Your task to perform on an android device: allow notifications from all sites in the chrome app Image 0: 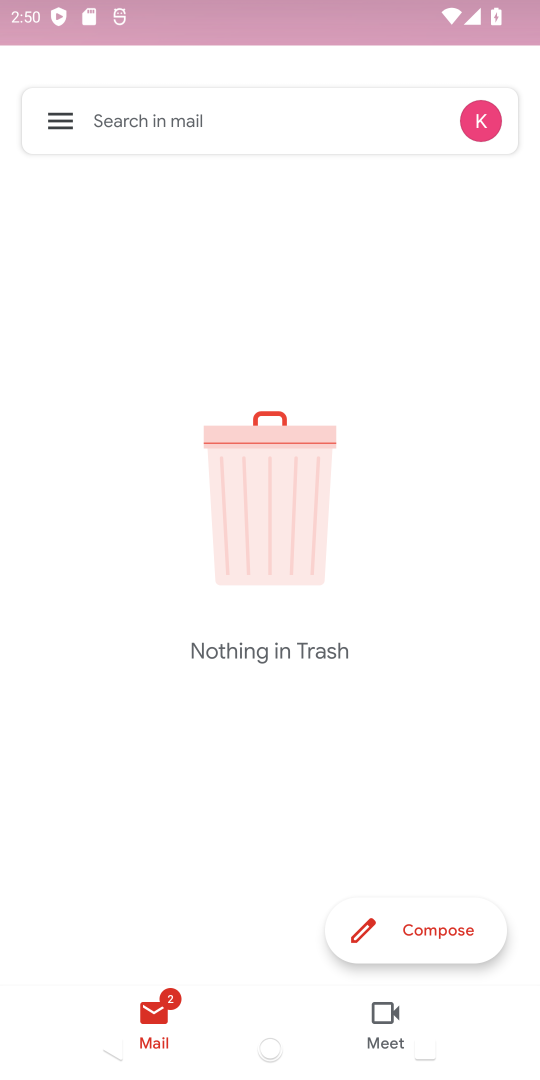
Step 0: press home button
Your task to perform on an android device: allow notifications from all sites in the chrome app Image 1: 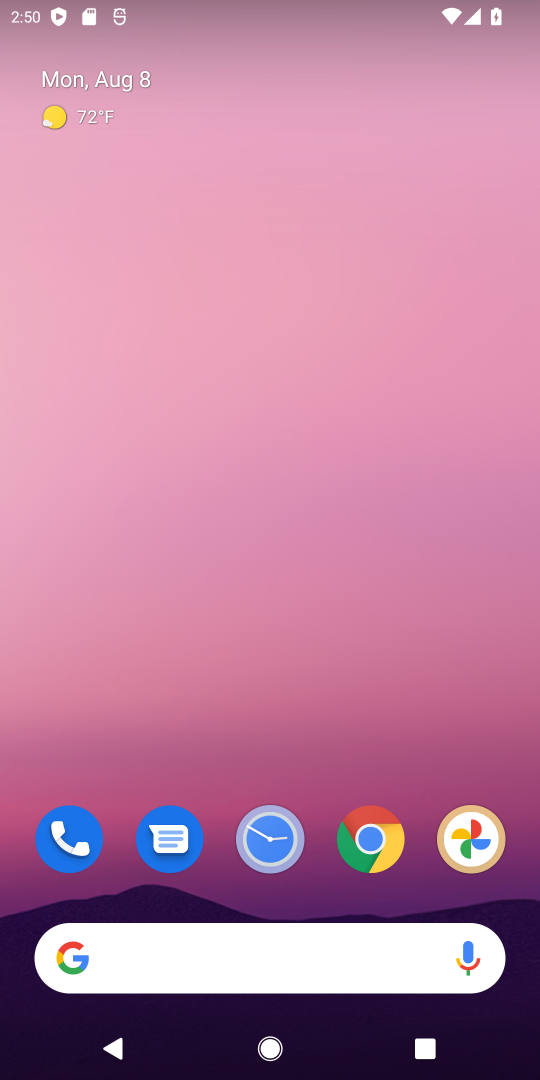
Step 1: press home button
Your task to perform on an android device: allow notifications from all sites in the chrome app Image 2: 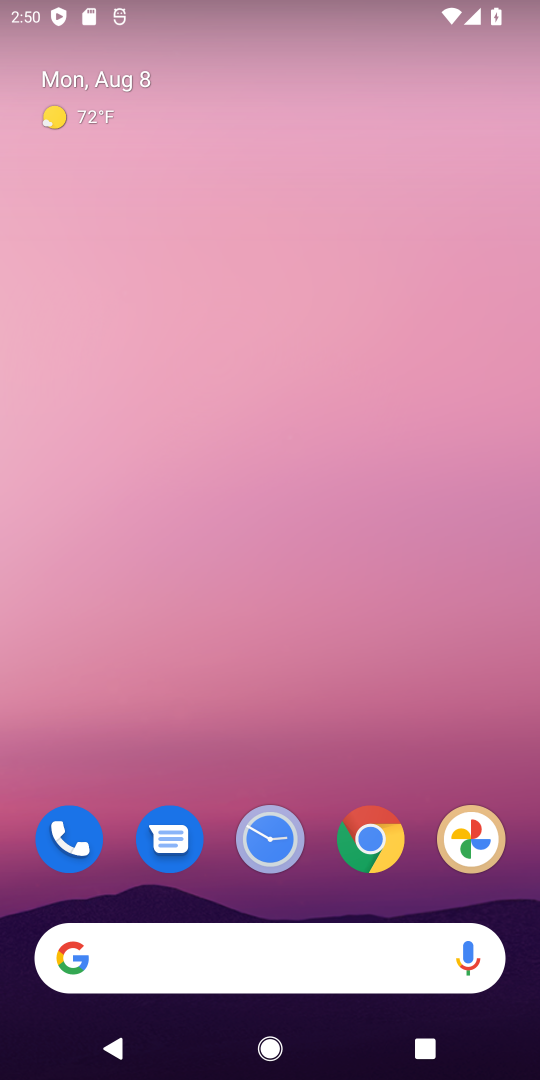
Step 2: drag from (414, 769) to (419, 181)
Your task to perform on an android device: allow notifications from all sites in the chrome app Image 3: 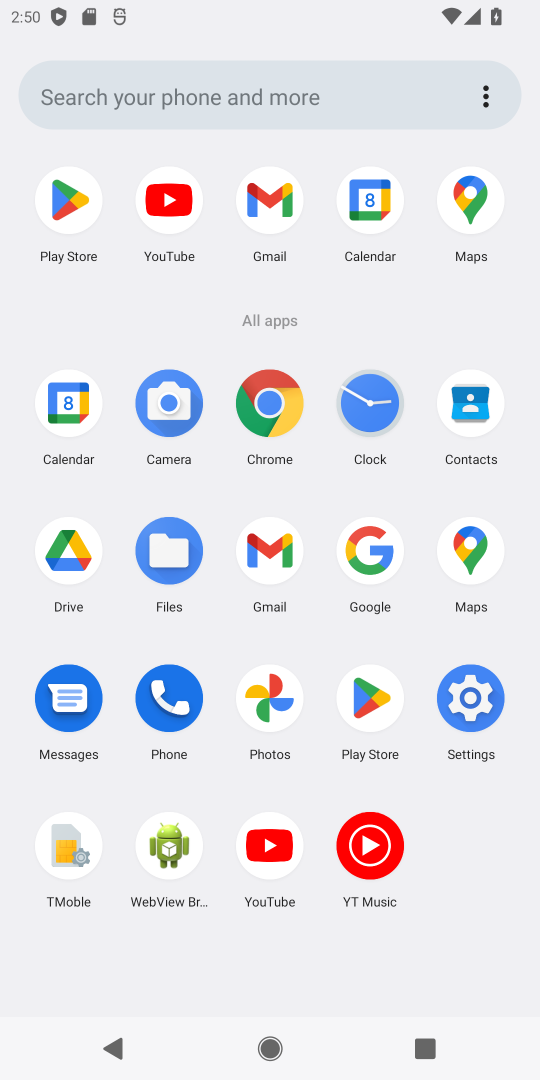
Step 3: click (282, 398)
Your task to perform on an android device: allow notifications from all sites in the chrome app Image 4: 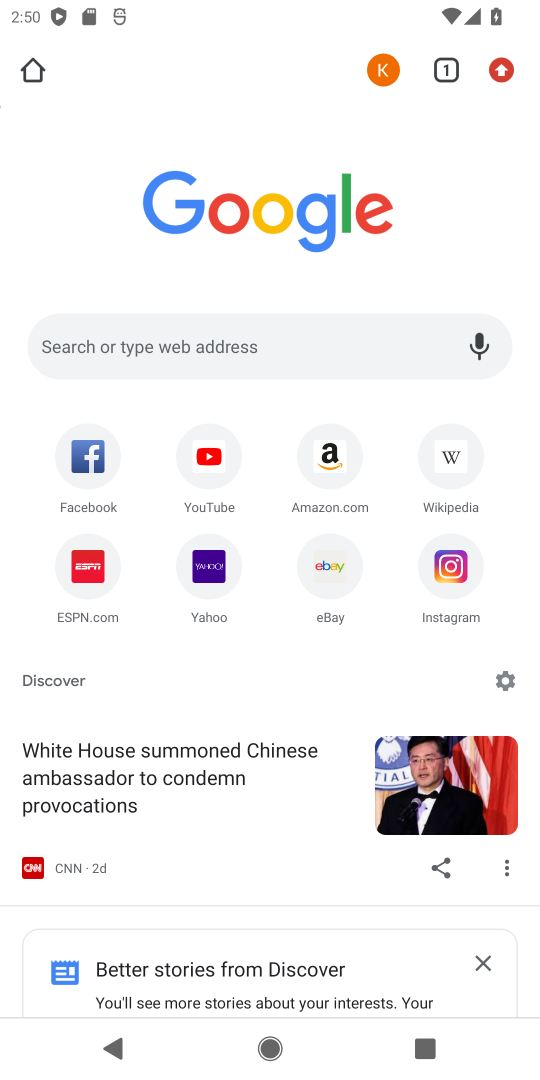
Step 4: click (501, 68)
Your task to perform on an android device: allow notifications from all sites in the chrome app Image 5: 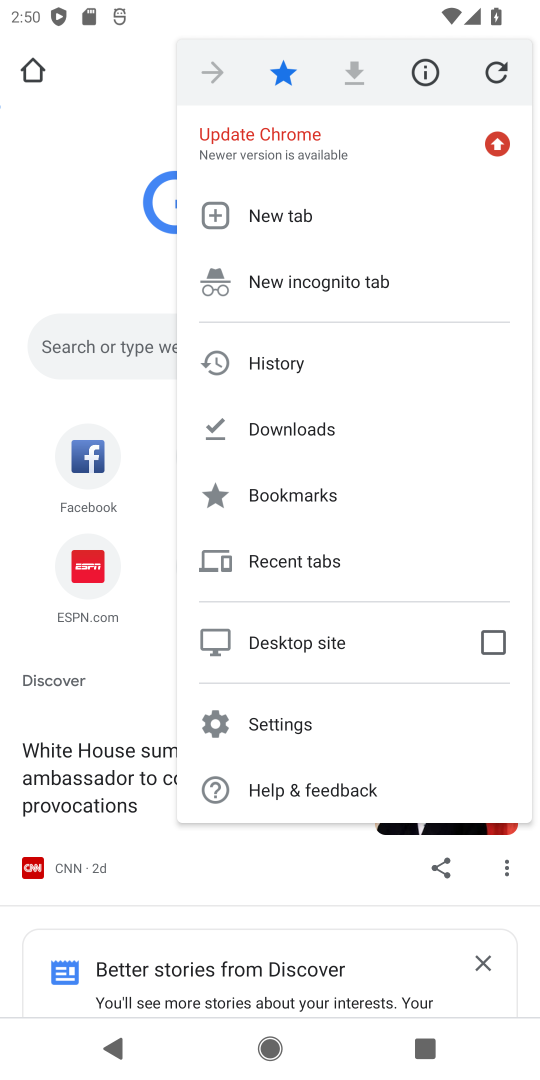
Step 5: click (369, 725)
Your task to perform on an android device: allow notifications from all sites in the chrome app Image 6: 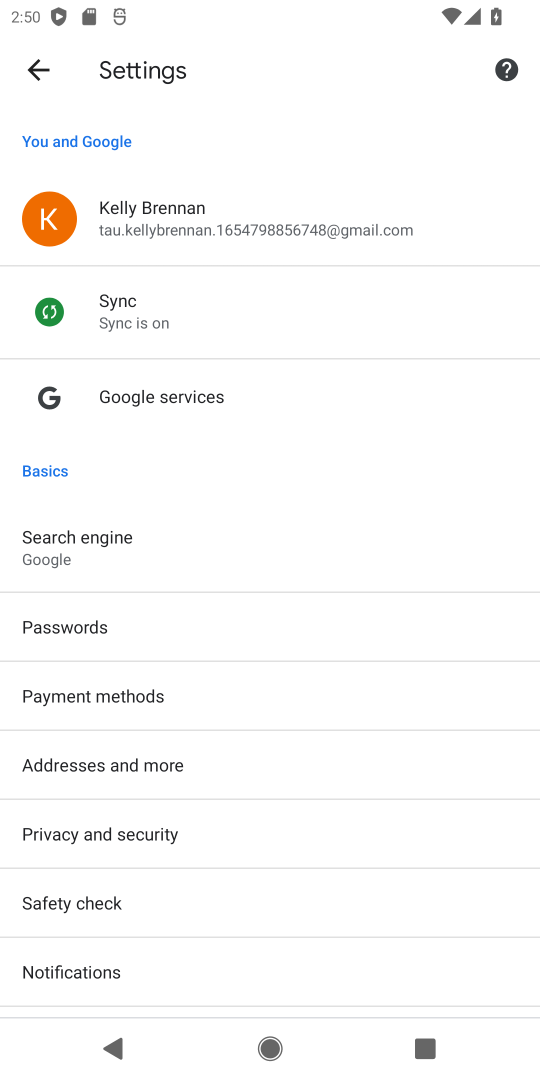
Step 6: drag from (369, 723) to (399, 523)
Your task to perform on an android device: allow notifications from all sites in the chrome app Image 7: 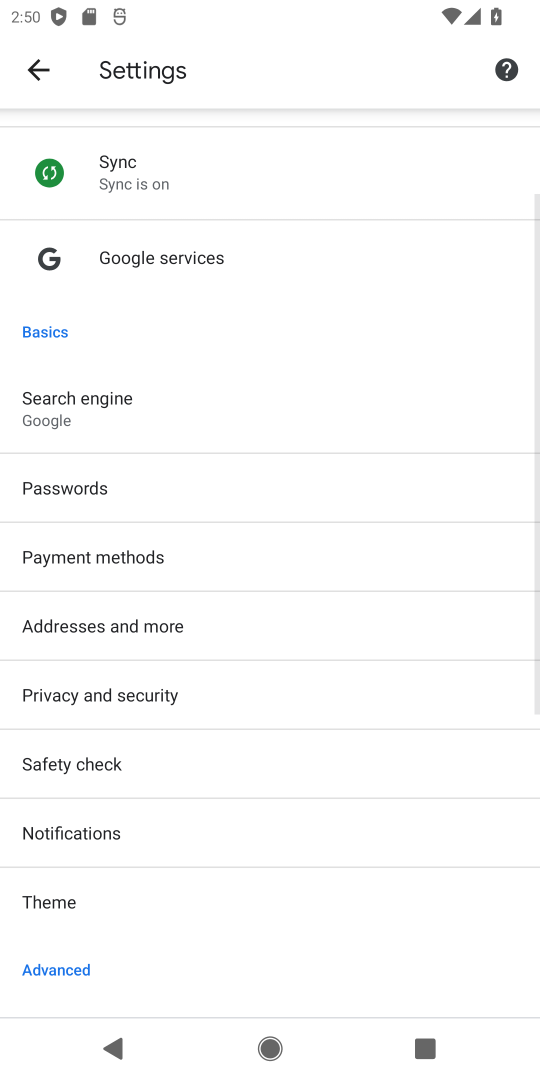
Step 7: drag from (387, 639) to (385, 525)
Your task to perform on an android device: allow notifications from all sites in the chrome app Image 8: 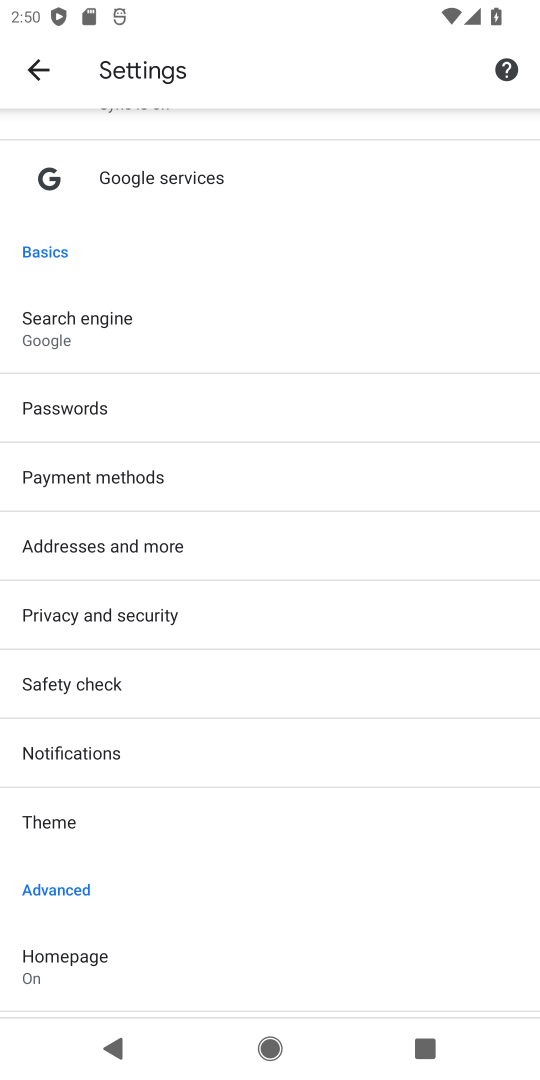
Step 8: click (406, 579)
Your task to perform on an android device: allow notifications from all sites in the chrome app Image 9: 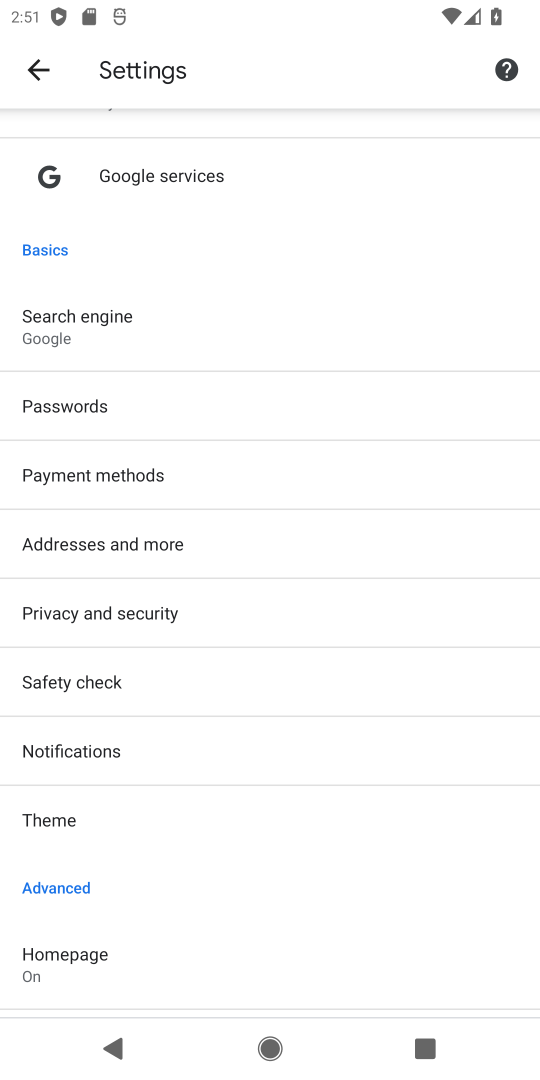
Step 9: drag from (339, 759) to (364, 459)
Your task to perform on an android device: allow notifications from all sites in the chrome app Image 10: 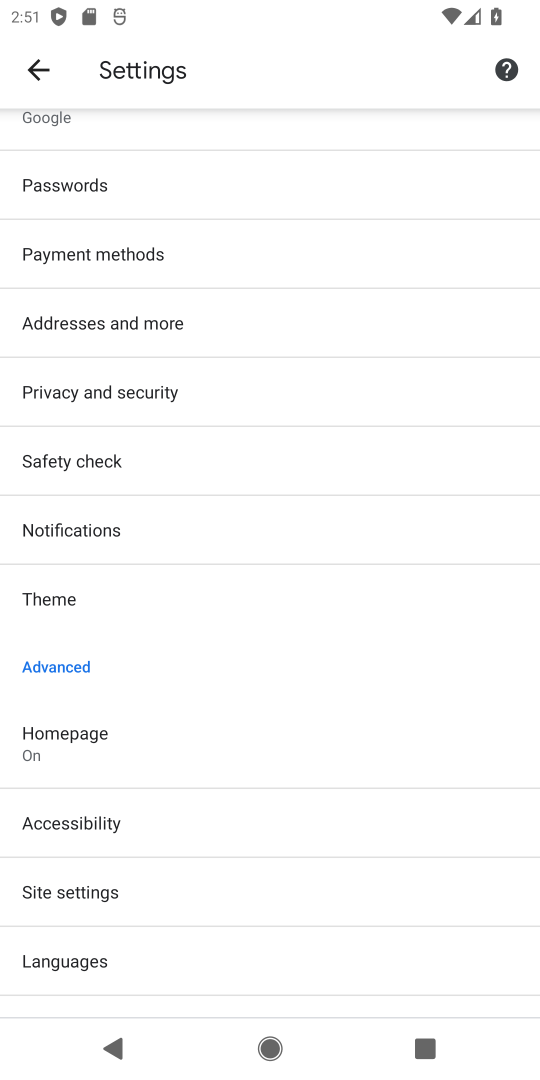
Step 10: click (320, 892)
Your task to perform on an android device: allow notifications from all sites in the chrome app Image 11: 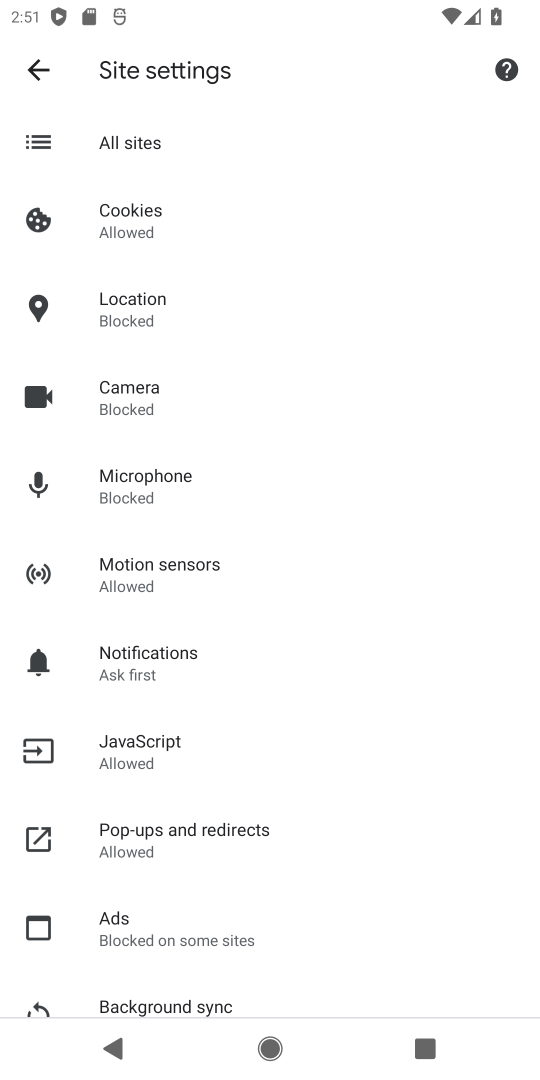
Step 11: drag from (406, 807) to (409, 576)
Your task to perform on an android device: allow notifications from all sites in the chrome app Image 12: 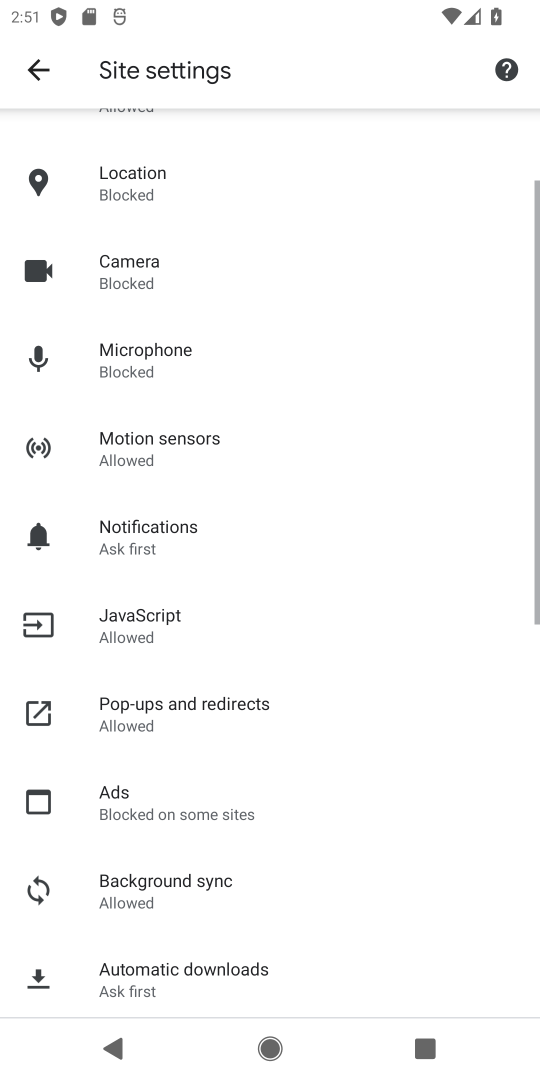
Step 12: drag from (430, 790) to (448, 514)
Your task to perform on an android device: allow notifications from all sites in the chrome app Image 13: 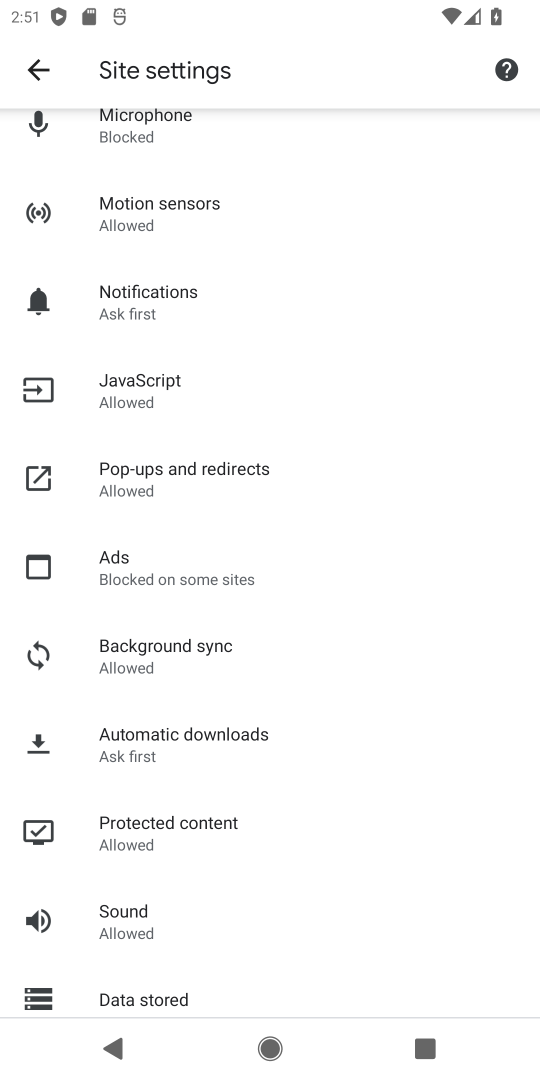
Step 13: click (226, 308)
Your task to perform on an android device: allow notifications from all sites in the chrome app Image 14: 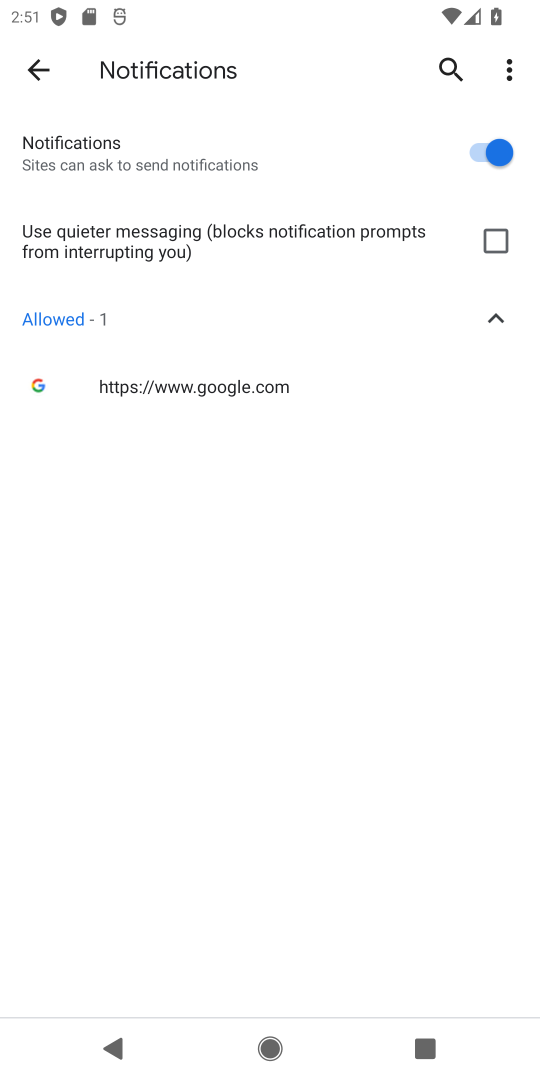
Step 14: task complete